Your task to perform on an android device: Set the phone to "Do not disturb". Image 0: 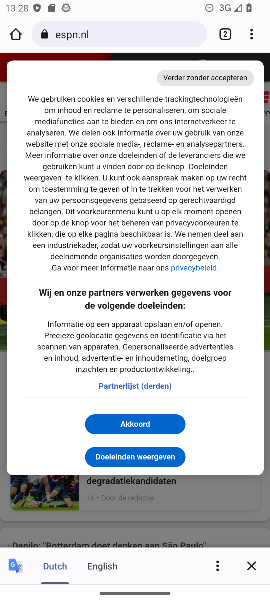
Step 0: press home button
Your task to perform on an android device: Set the phone to "Do not disturb". Image 1: 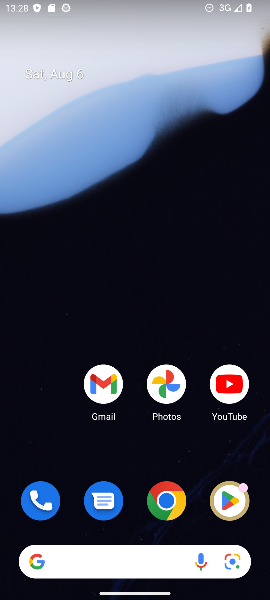
Step 1: drag from (151, 470) to (134, 55)
Your task to perform on an android device: Set the phone to "Do not disturb". Image 2: 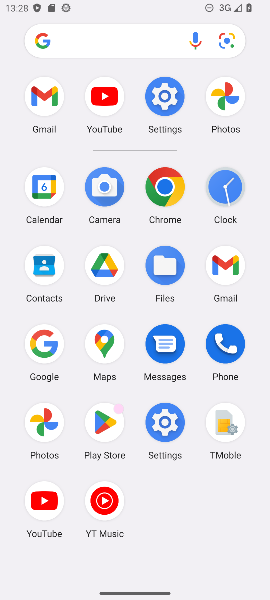
Step 2: click (166, 98)
Your task to perform on an android device: Set the phone to "Do not disturb". Image 3: 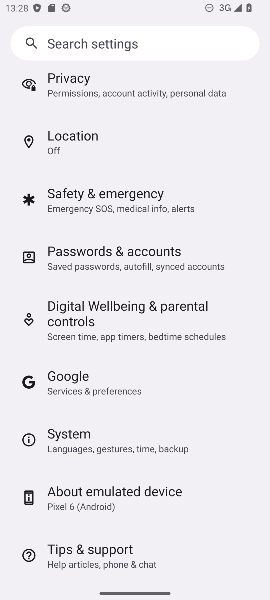
Step 3: drag from (133, 145) to (133, 333)
Your task to perform on an android device: Set the phone to "Do not disturb". Image 4: 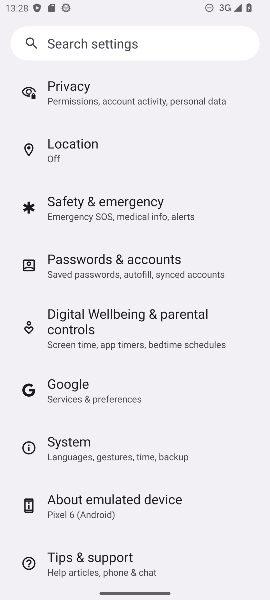
Step 4: drag from (111, 139) to (117, 435)
Your task to perform on an android device: Set the phone to "Do not disturb". Image 5: 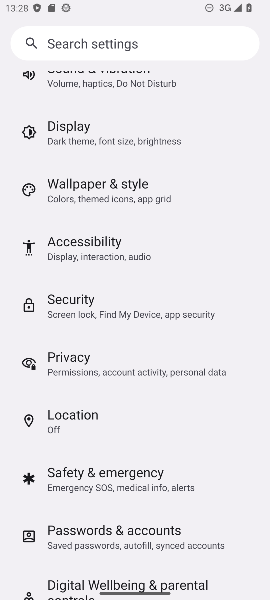
Step 5: drag from (107, 177) to (108, 323)
Your task to perform on an android device: Set the phone to "Do not disturb". Image 6: 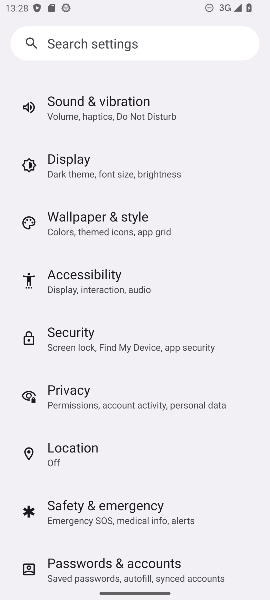
Step 6: click (95, 110)
Your task to perform on an android device: Set the phone to "Do not disturb". Image 7: 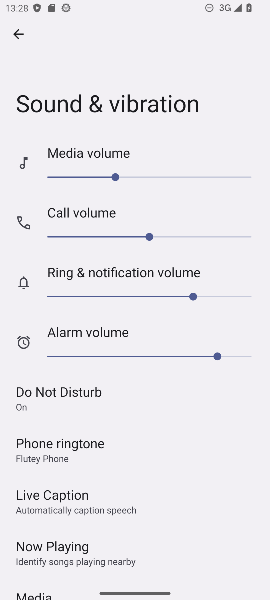
Step 7: click (84, 401)
Your task to perform on an android device: Set the phone to "Do not disturb". Image 8: 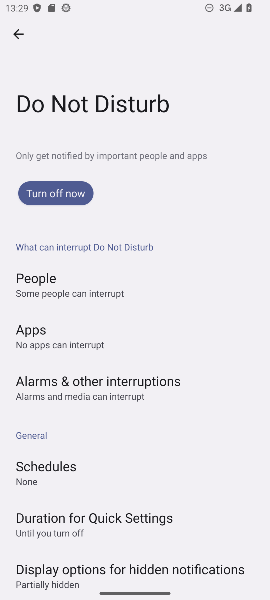
Step 8: task complete